Your task to perform on an android device: toggle translation in the chrome app Image 0: 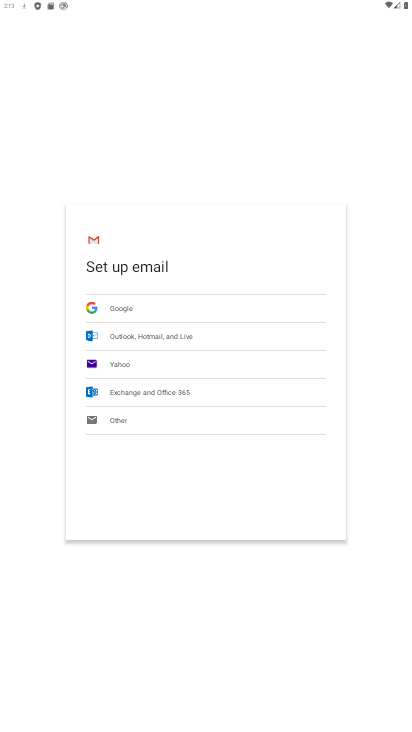
Step 0: press home button
Your task to perform on an android device: toggle translation in the chrome app Image 1: 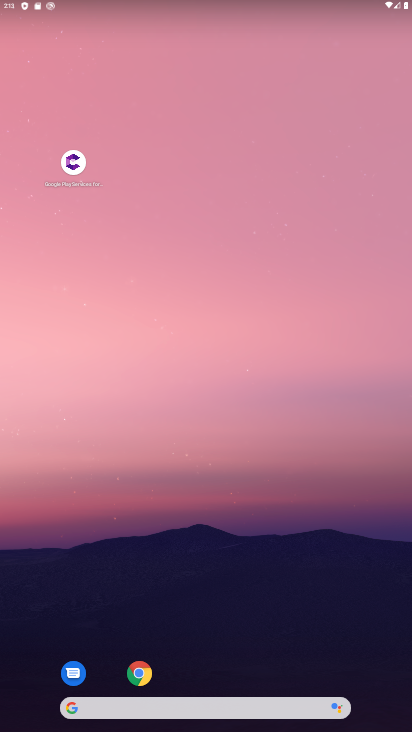
Step 1: click (141, 672)
Your task to perform on an android device: toggle translation in the chrome app Image 2: 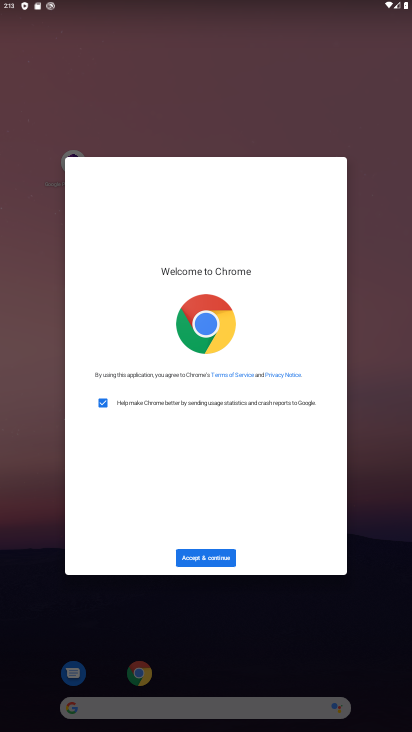
Step 2: click (196, 558)
Your task to perform on an android device: toggle translation in the chrome app Image 3: 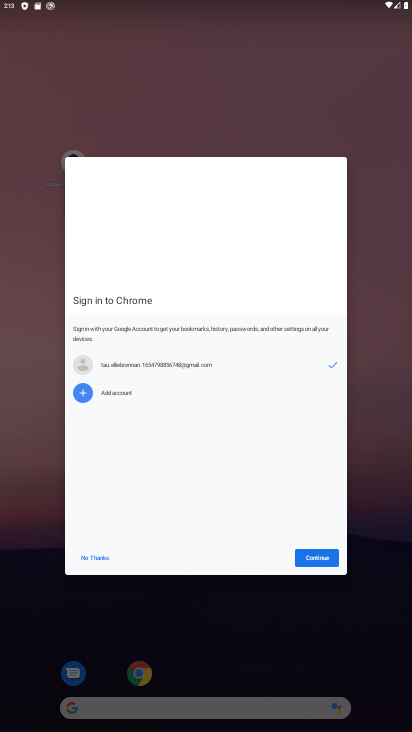
Step 3: click (311, 554)
Your task to perform on an android device: toggle translation in the chrome app Image 4: 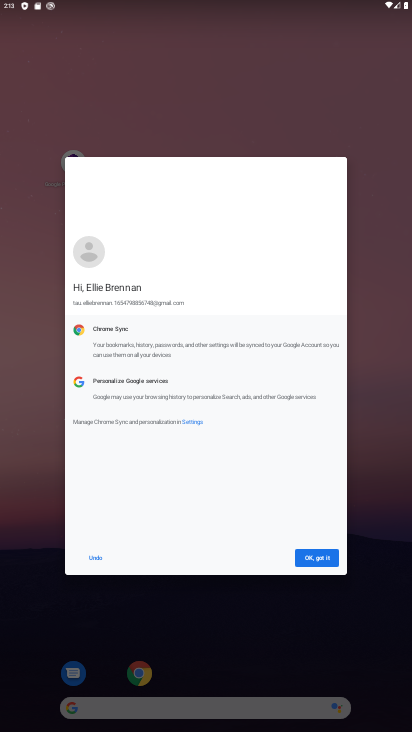
Step 4: click (314, 554)
Your task to perform on an android device: toggle translation in the chrome app Image 5: 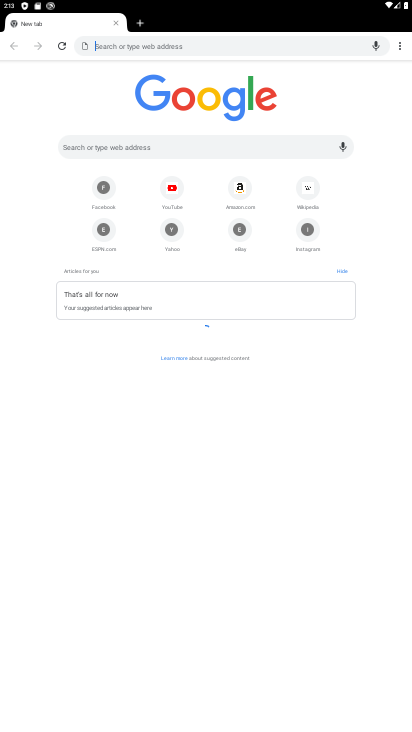
Step 5: click (398, 49)
Your task to perform on an android device: toggle translation in the chrome app Image 6: 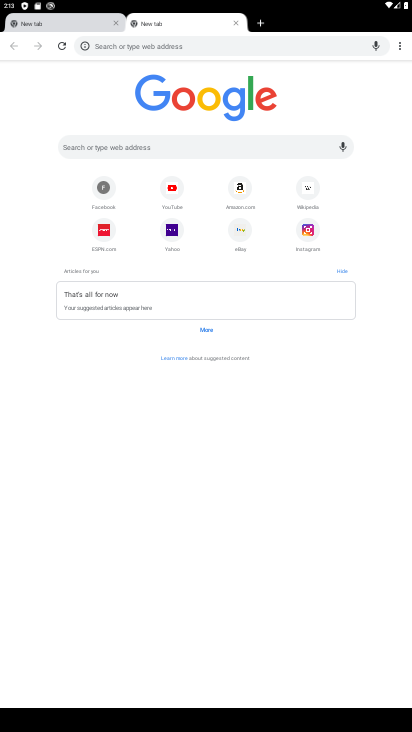
Step 6: click (402, 49)
Your task to perform on an android device: toggle translation in the chrome app Image 7: 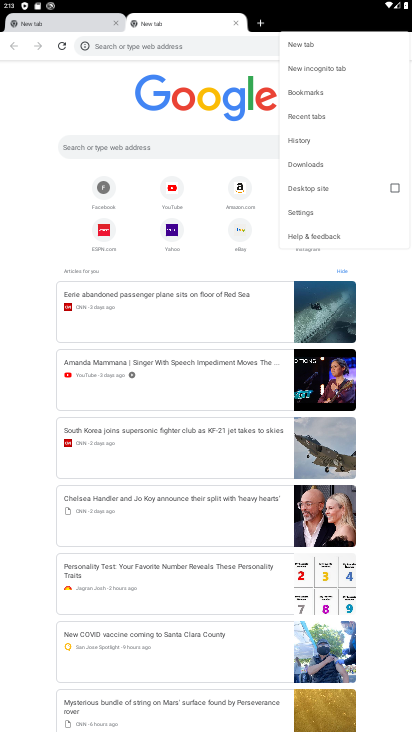
Step 7: click (300, 214)
Your task to perform on an android device: toggle translation in the chrome app Image 8: 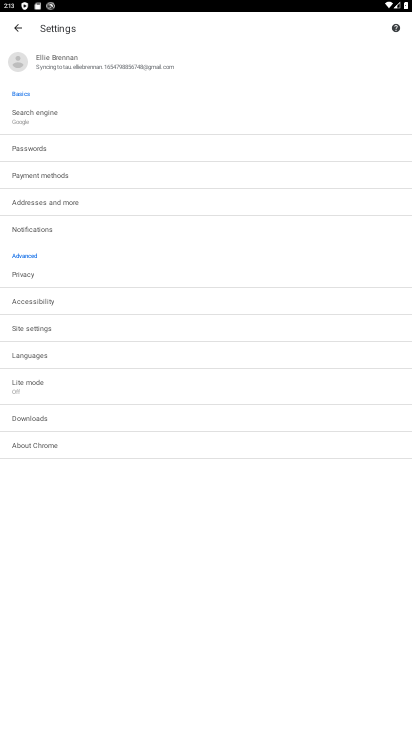
Step 8: click (34, 353)
Your task to perform on an android device: toggle translation in the chrome app Image 9: 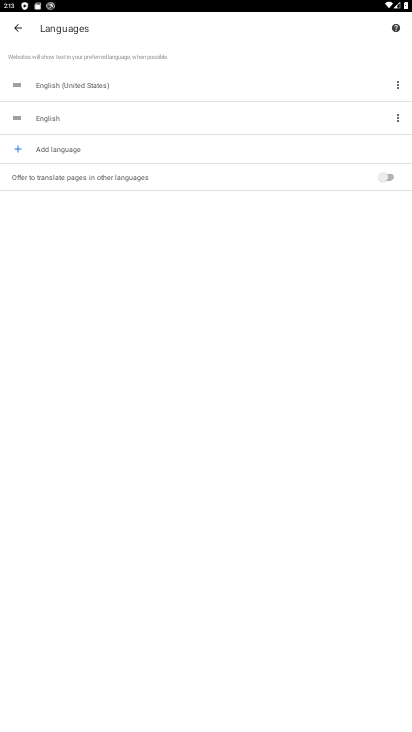
Step 9: click (396, 173)
Your task to perform on an android device: toggle translation in the chrome app Image 10: 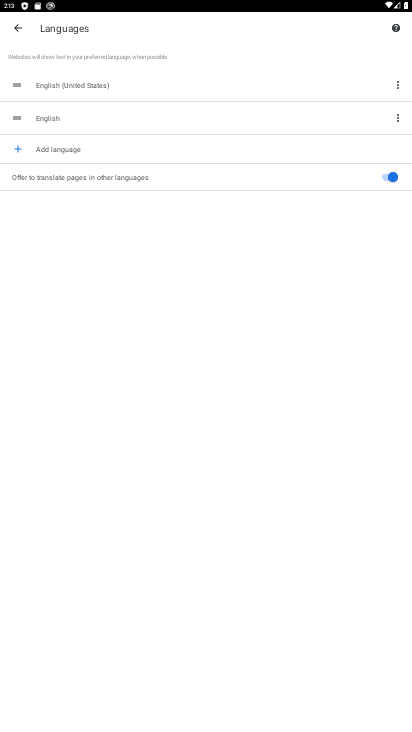
Step 10: task complete